Your task to perform on an android device: Open battery settings Image 0: 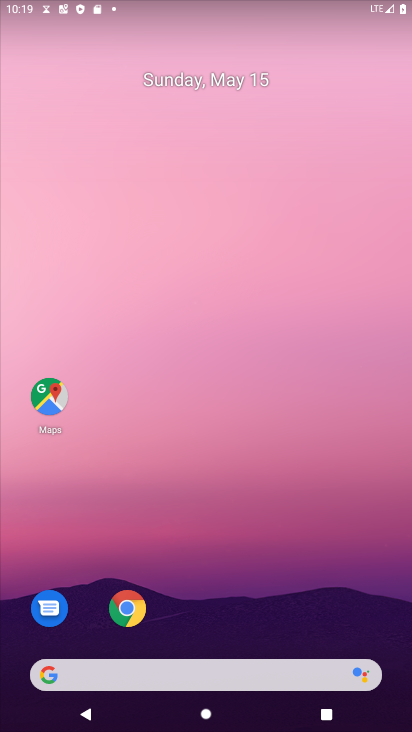
Step 0: drag from (223, 444) to (20, 183)
Your task to perform on an android device: Open battery settings Image 1: 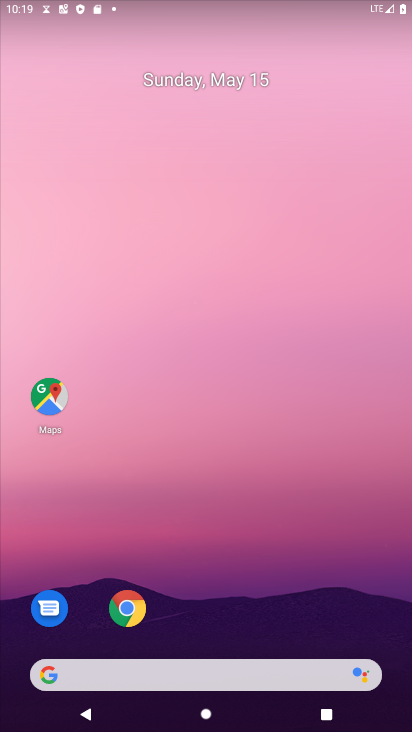
Step 1: drag from (240, 586) to (275, 3)
Your task to perform on an android device: Open battery settings Image 2: 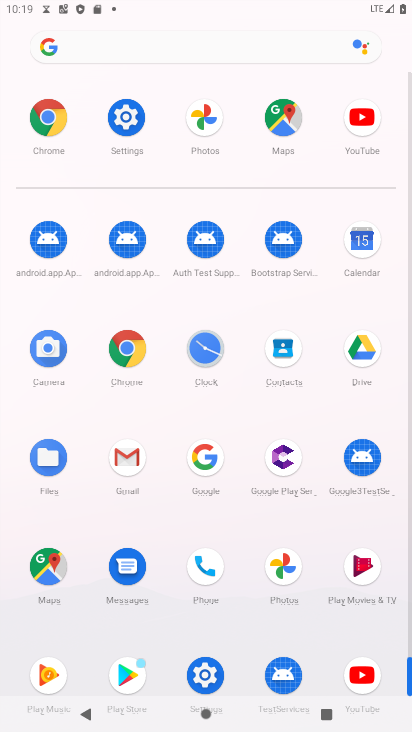
Step 2: click (131, 179)
Your task to perform on an android device: Open battery settings Image 3: 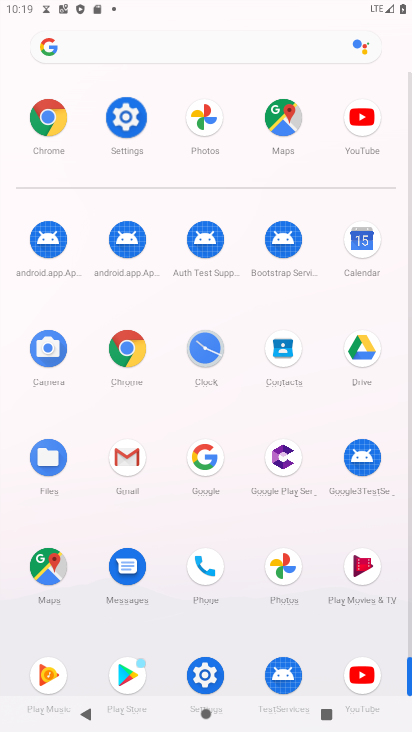
Step 3: click (129, 148)
Your task to perform on an android device: Open battery settings Image 4: 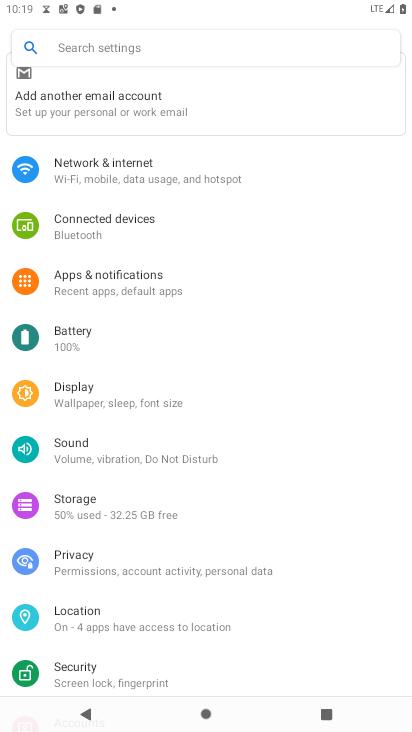
Step 4: click (54, 340)
Your task to perform on an android device: Open battery settings Image 5: 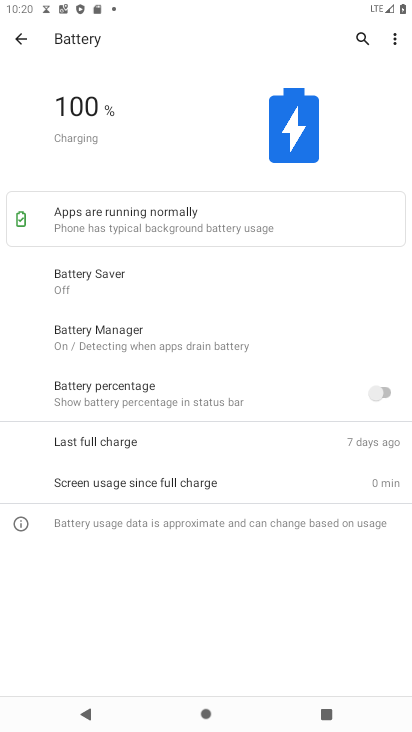
Step 5: task complete